Your task to perform on an android device: delete location history Image 0: 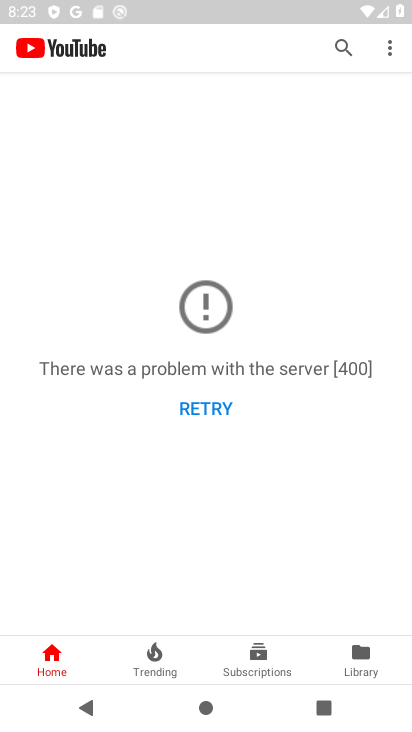
Step 0: press back button
Your task to perform on an android device: delete location history Image 1: 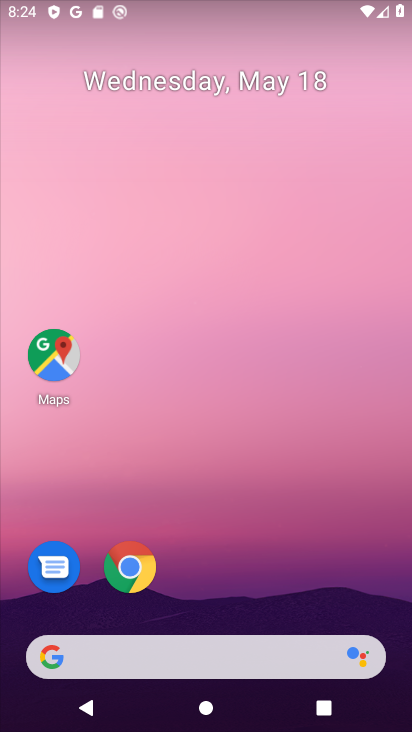
Step 1: drag from (309, 591) to (293, 51)
Your task to perform on an android device: delete location history Image 2: 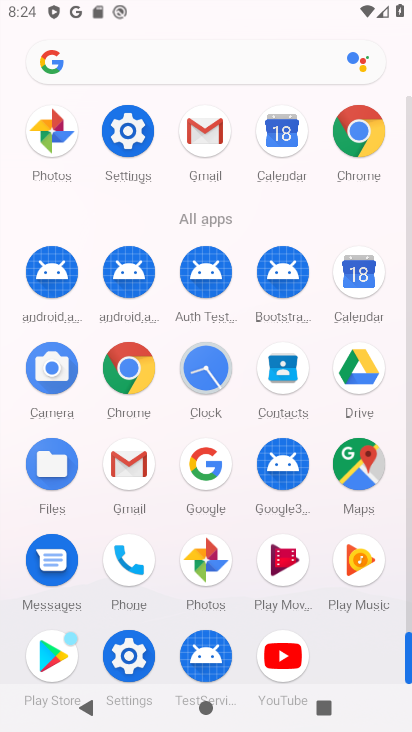
Step 2: drag from (9, 581) to (12, 307)
Your task to perform on an android device: delete location history Image 3: 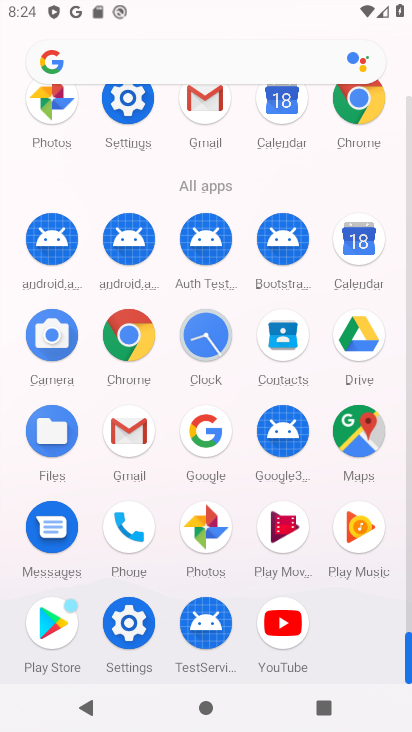
Step 3: click (130, 618)
Your task to perform on an android device: delete location history Image 4: 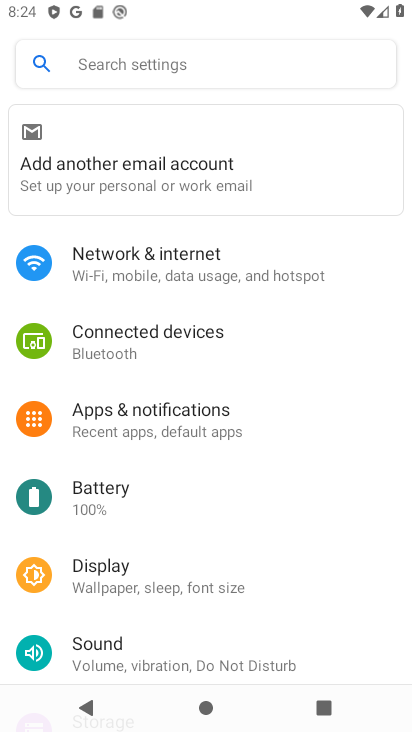
Step 4: drag from (250, 554) to (280, 230)
Your task to perform on an android device: delete location history Image 5: 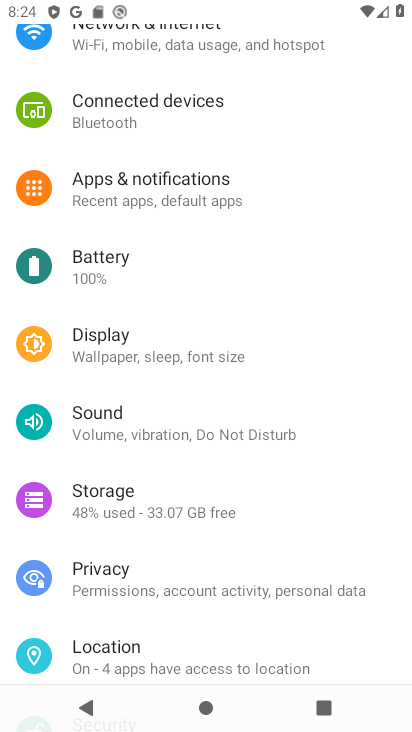
Step 5: click (129, 648)
Your task to perform on an android device: delete location history Image 6: 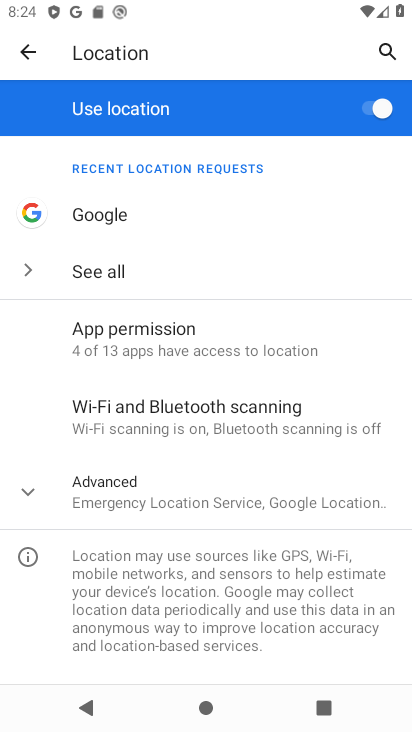
Step 6: click (50, 497)
Your task to perform on an android device: delete location history Image 7: 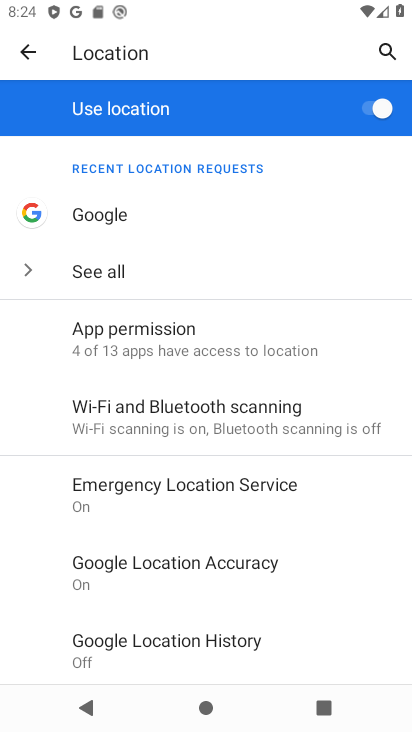
Step 7: click (177, 634)
Your task to perform on an android device: delete location history Image 8: 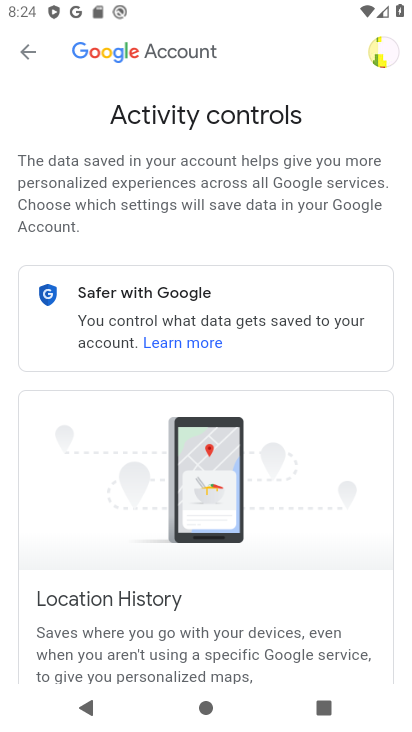
Step 8: drag from (283, 534) to (282, 157)
Your task to perform on an android device: delete location history Image 9: 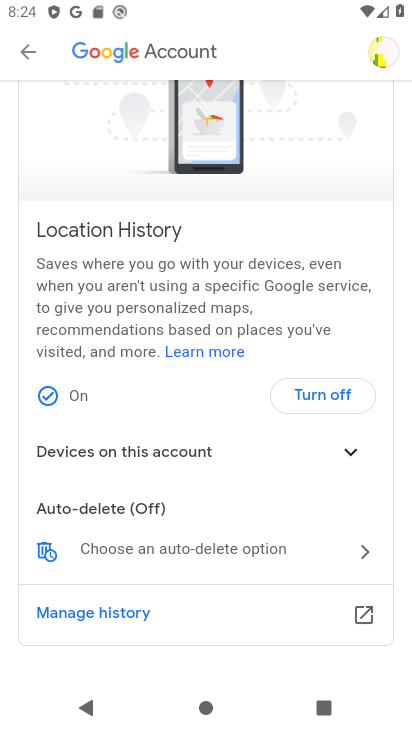
Step 9: click (102, 533)
Your task to perform on an android device: delete location history Image 10: 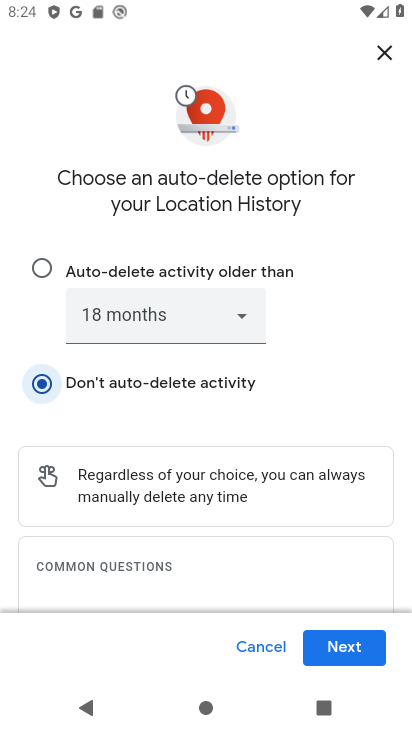
Step 10: click (332, 644)
Your task to perform on an android device: delete location history Image 11: 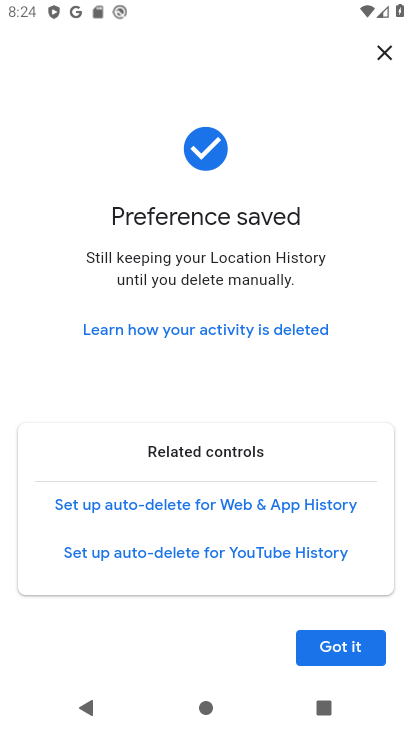
Step 11: task complete